Your task to perform on an android device: turn on airplane mode Image 0: 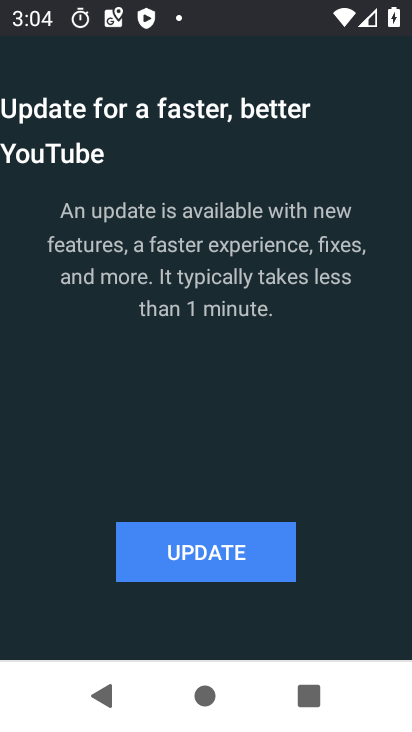
Step 0: press home button
Your task to perform on an android device: turn on airplane mode Image 1: 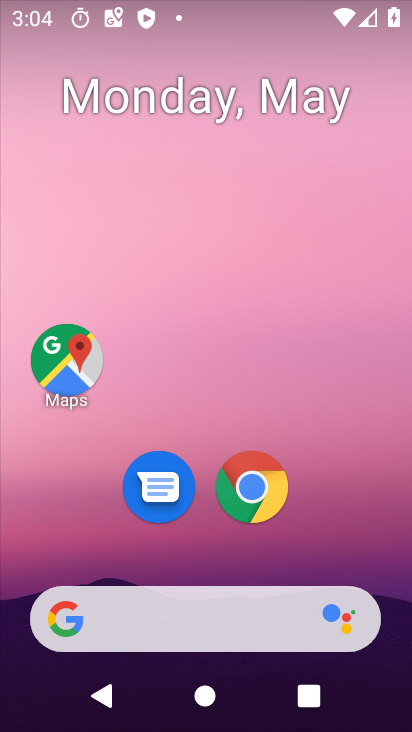
Step 1: drag from (212, 579) to (303, 0)
Your task to perform on an android device: turn on airplane mode Image 2: 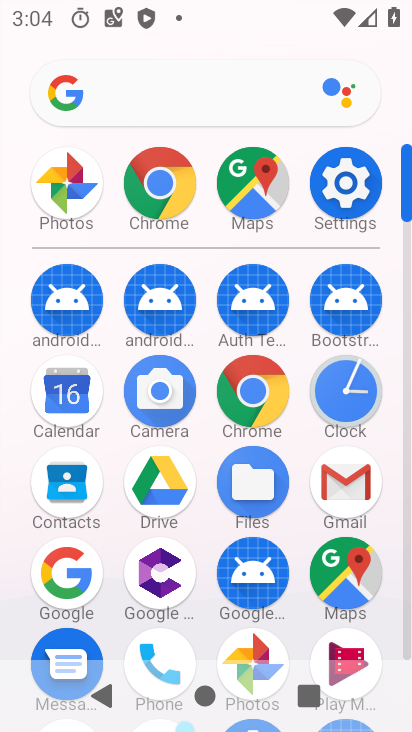
Step 2: click (350, 197)
Your task to perform on an android device: turn on airplane mode Image 3: 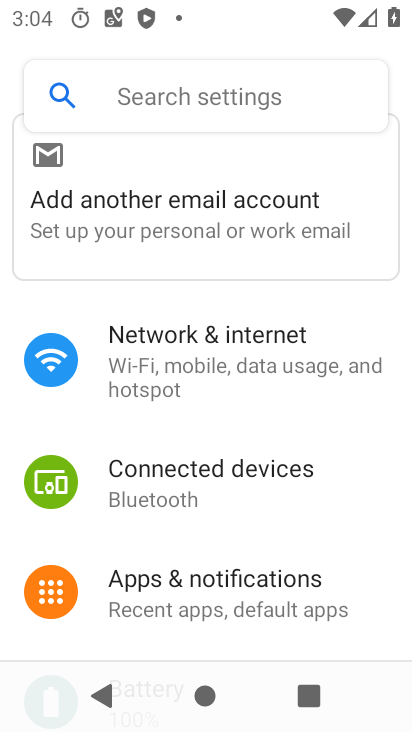
Step 3: click (196, 369)
Your task to perform on an android device: turn on airplane mode Image 4: 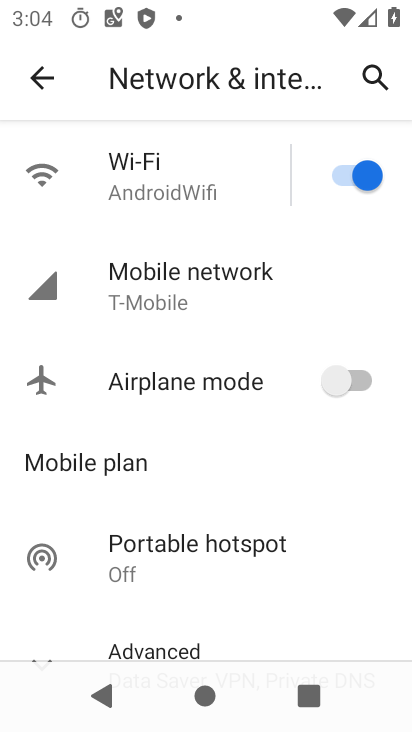
Step 4: click (371, 387)
Your task to perform on an android device: turn on airplane mode Image 5: 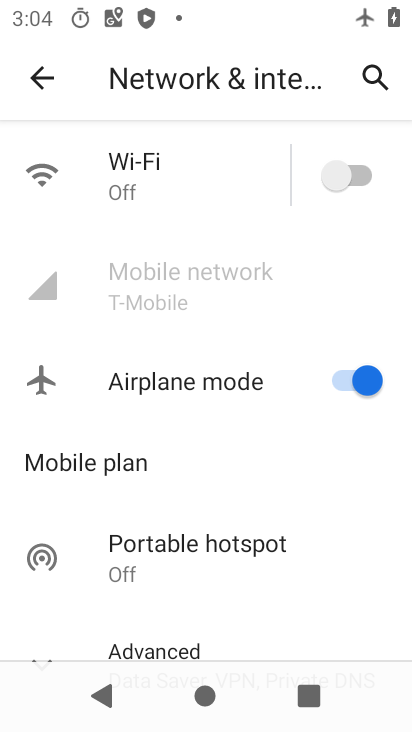
Step 5: task complete